Your task to perform on an android device: see sites visited before in the chrome app Image 0: 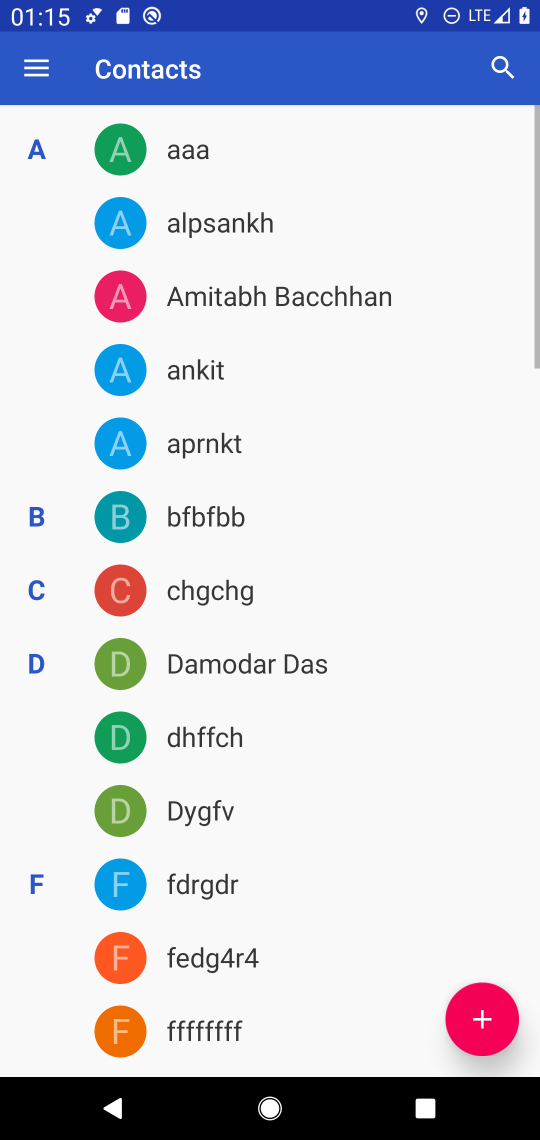
Step 0: press home button
Your task to perform on an android device: see sites visited before in the chrome app Image 1: 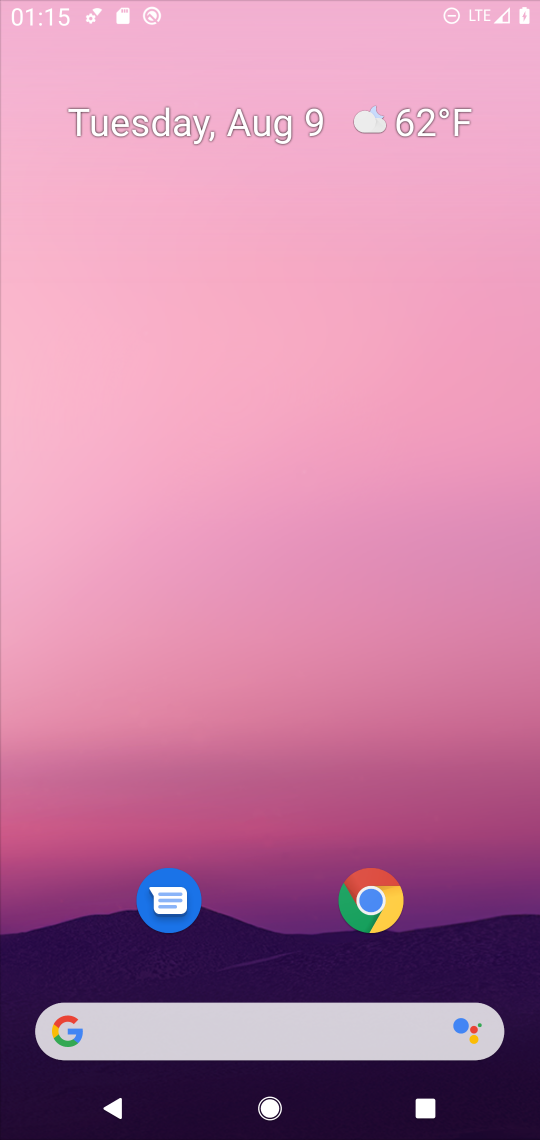
Step 1: drag from (273, 866) to (327, 86)
Your task to perform on an android device: see sites visited before in the chrome app Image 2: 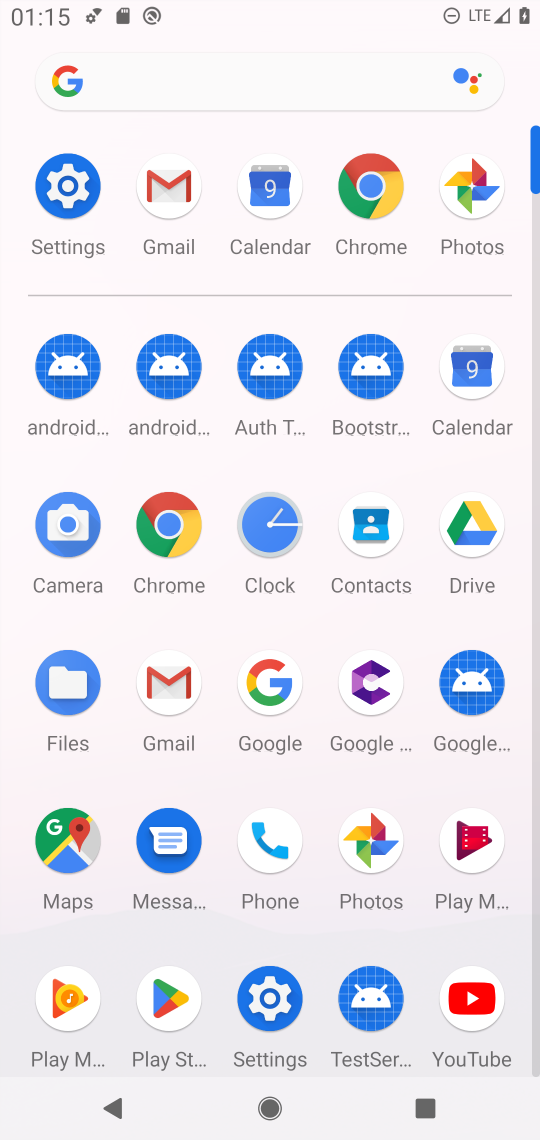
Step 2: click (175, 520)
Your task to perform on an android device: see sites visited before in the chrome app Image 3: 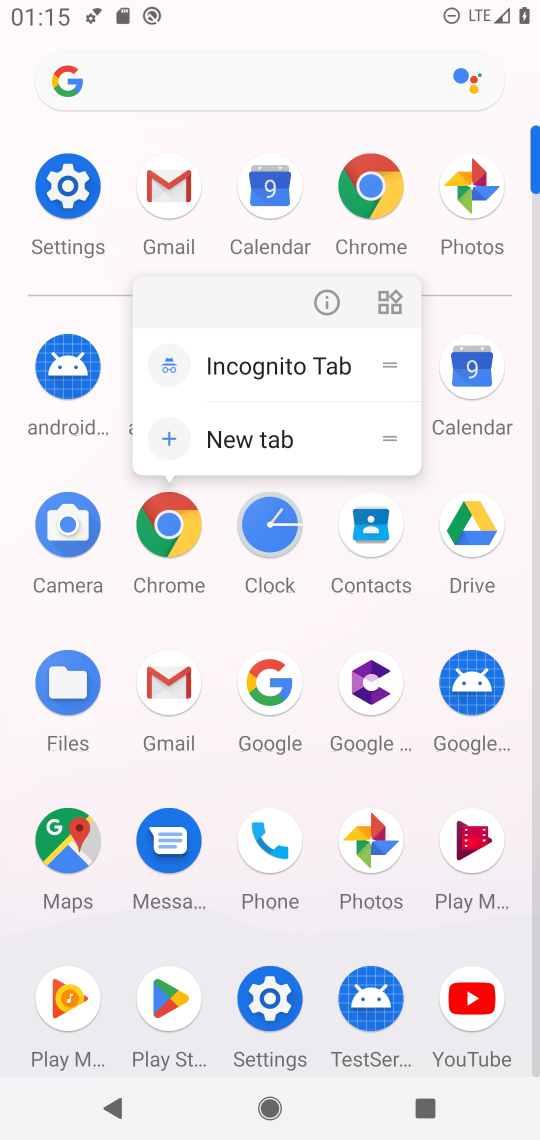
Step 3: click (175, 520)
Your task to perform on an android device: see sites visited before in the chrome app Image 4: 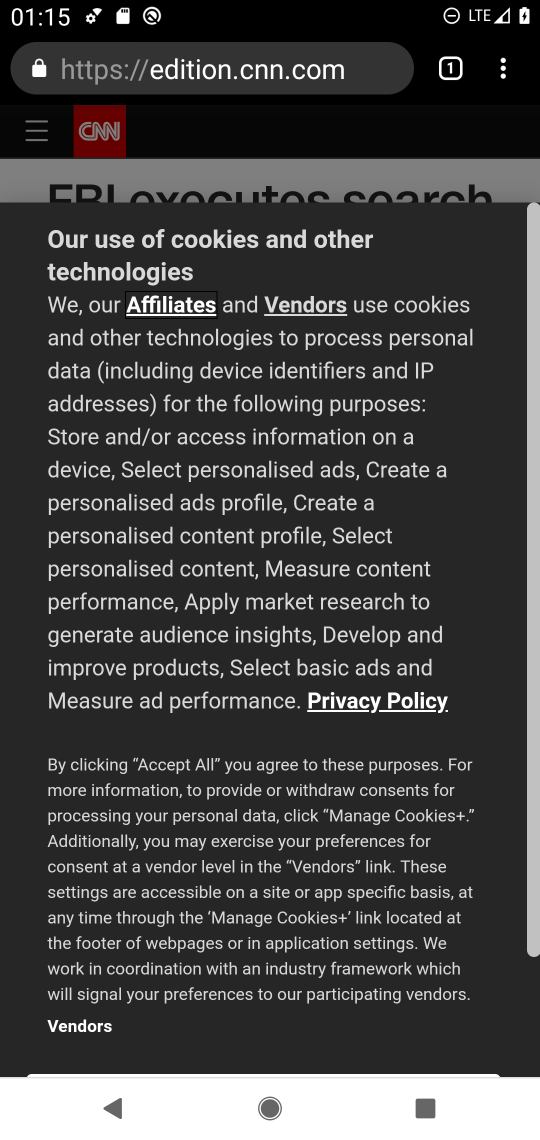
Step 4: click (502, 80)
Your task to perform on an android device: see sites visited before in the chrome app Image 5: 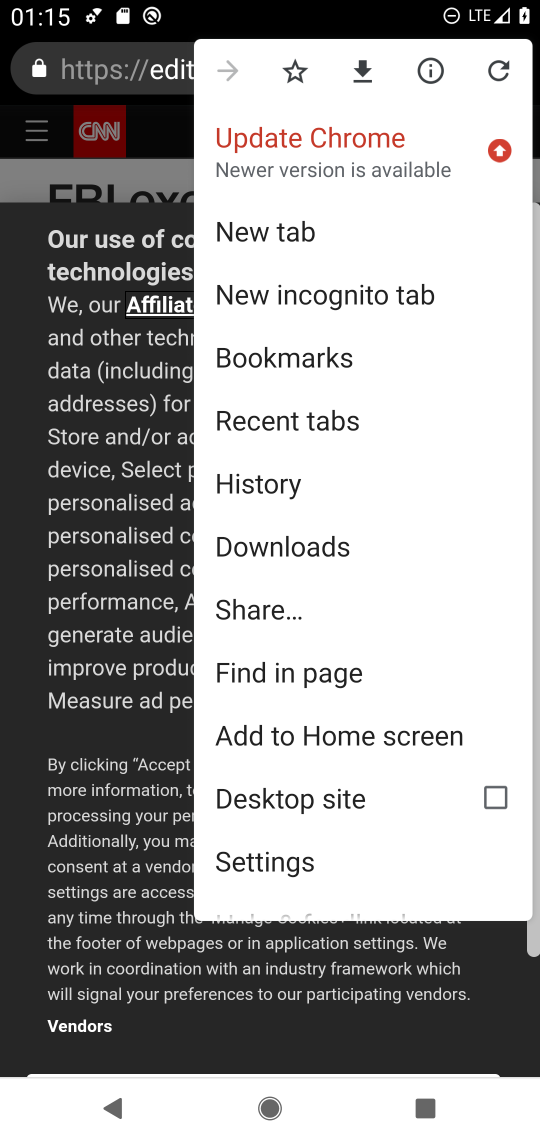
Step 5: click (287, 474)
Your task to perform on an android device: see sites visited before in the chrome app Image 6: 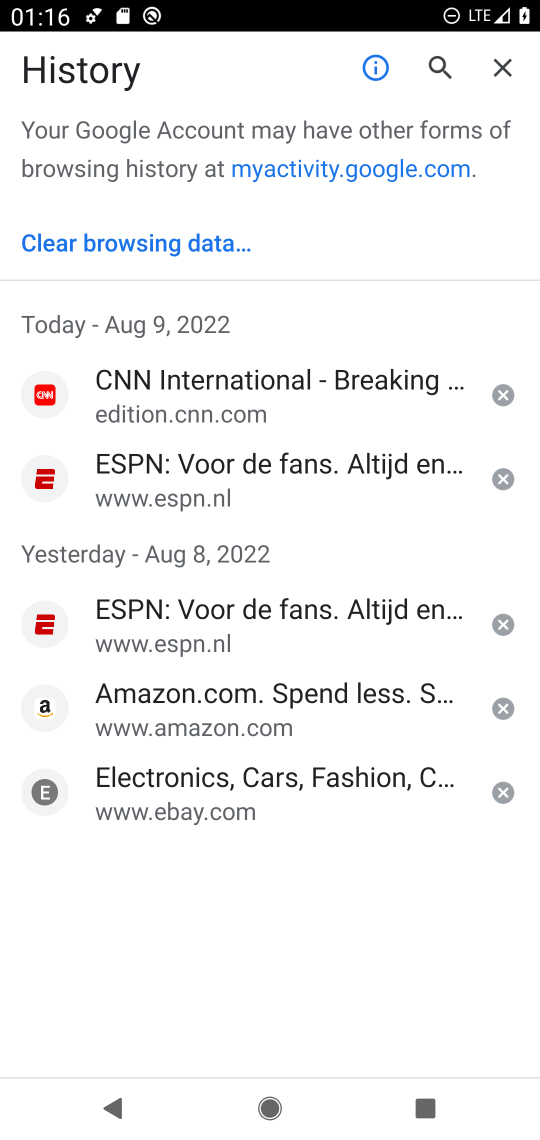
Step 6: task complete